Your task to perform on an android device: What is the news today? Image 0: 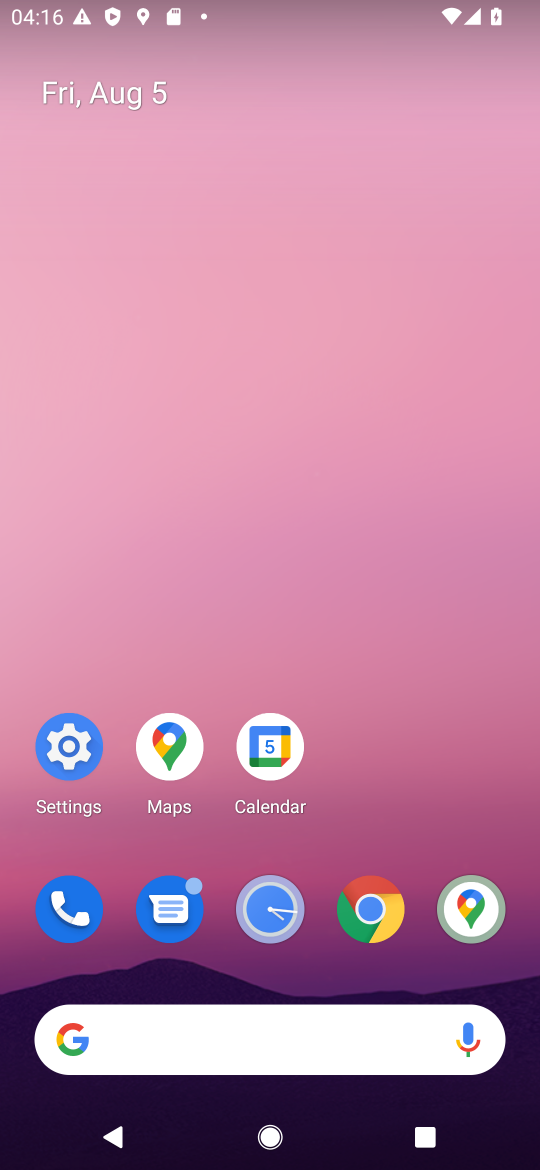
Step 0: click (208, 1019)
Your task to perform on an android device: What is the news today? Image 1: 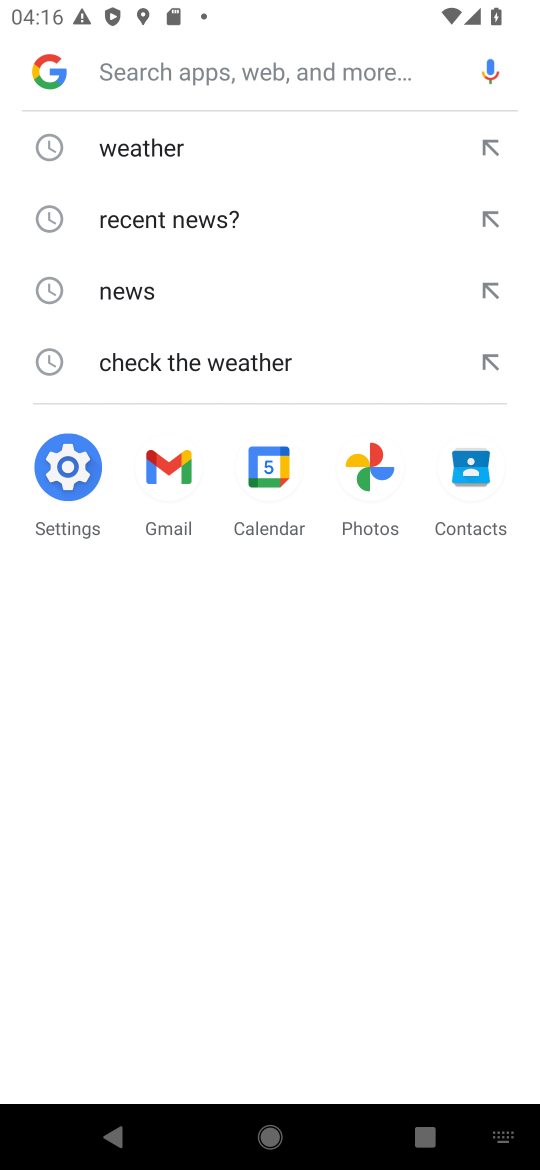
Step 1: click (141, 215)
Your task to perform on an android device: What is the news today? Image 2: 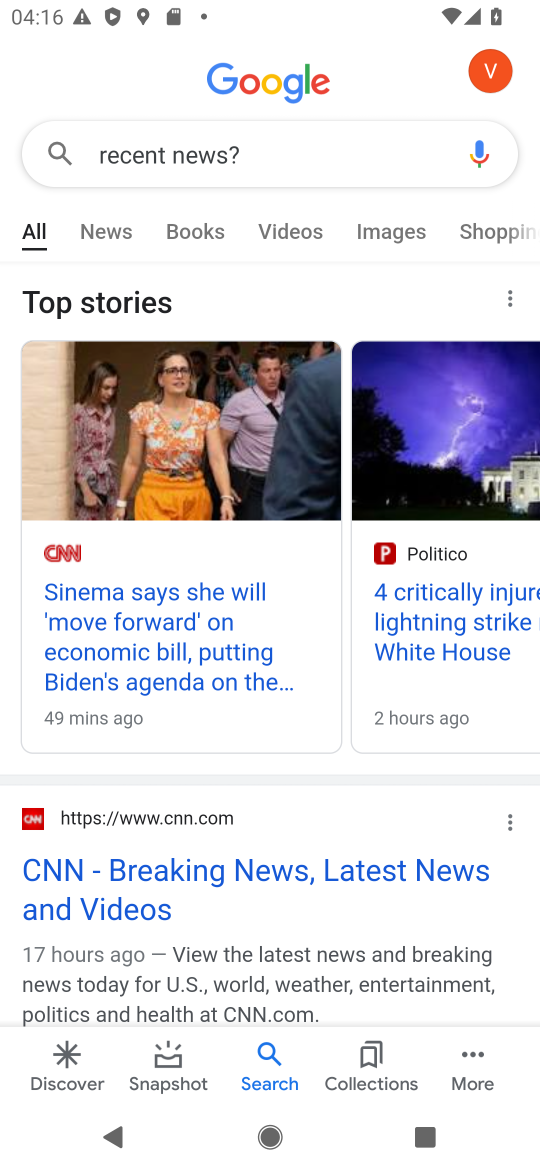
Step 2: click (188, 878)
Your task to perform on an android device: What is the news today? Image 3: 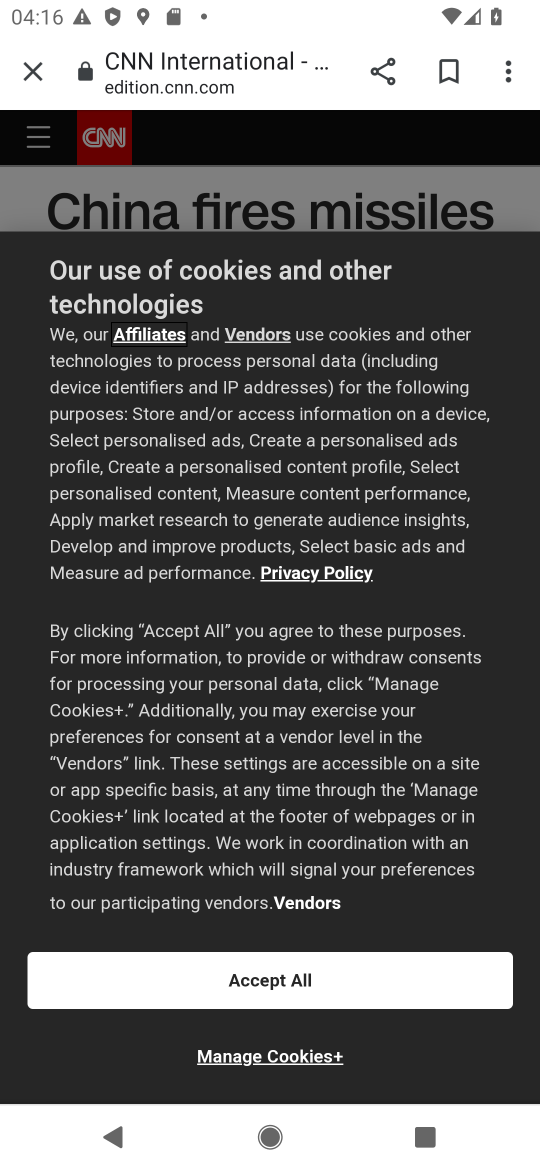
Step 3: click (275, 984)
Your task to perform on an android device: What is the news today? Image 4: 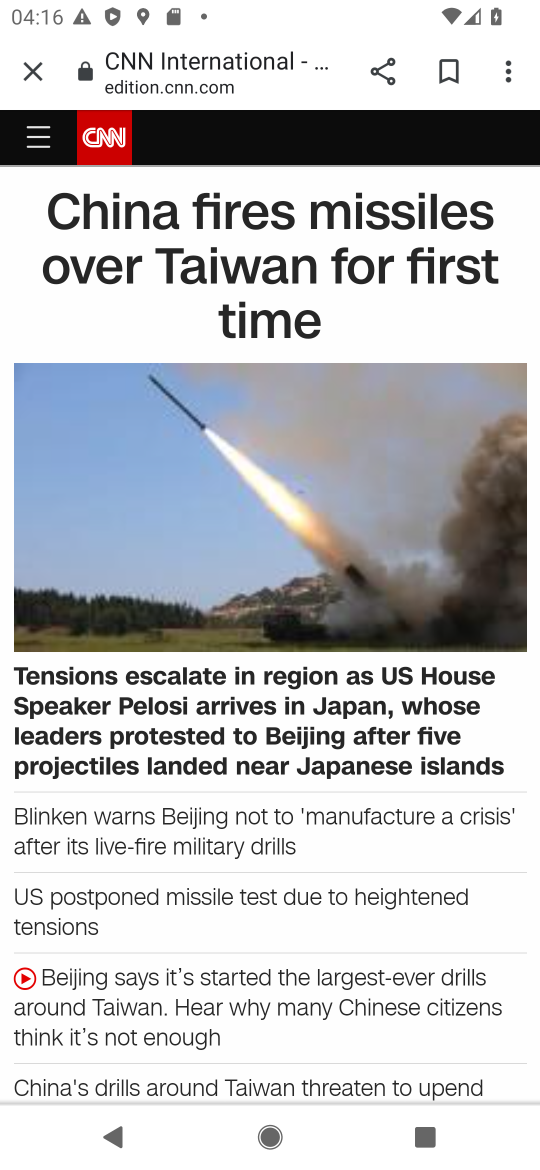
Step 4: task complete